Your task to perform on an android device: When is my next meeting? Image 0: 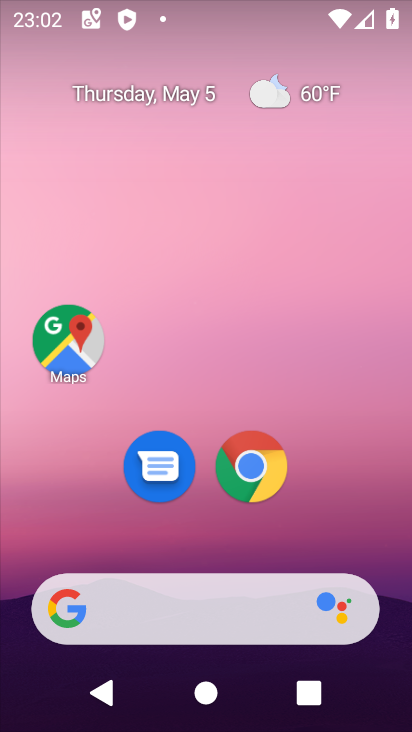
Step 0: drag from (184, 592) to (243, 264)
Your task to perform on an android device: When is my next meeting? Image 1: 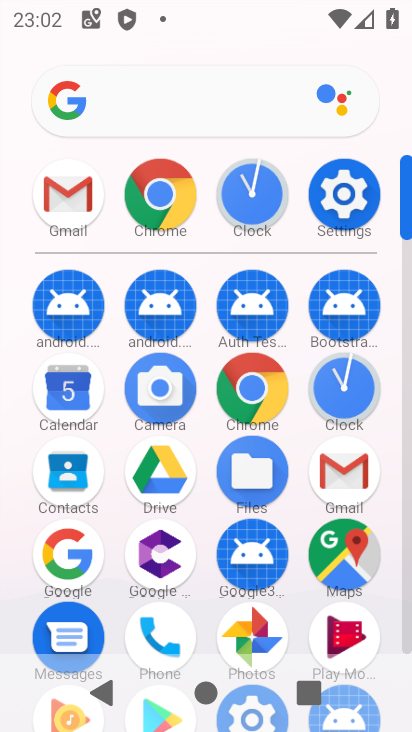
Step 1: click (65, 390)
Your task to perform on an android device: When is my next meeting? Image 2: 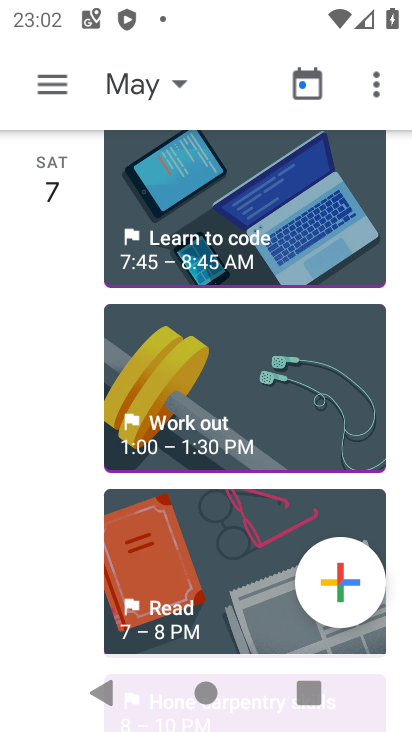
Step 2: task complete